Your task to perform on an android device: add a label to a message in the gmail app Image 0: 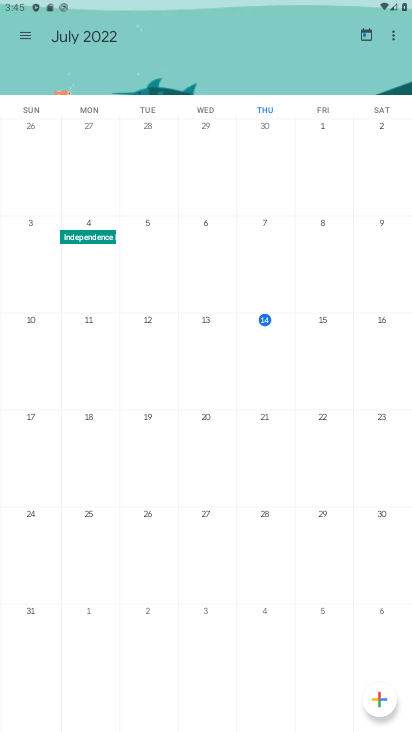
Step 0: press home button
Your task to perform on an android device: add a label to a message in the gmail app Image 1: 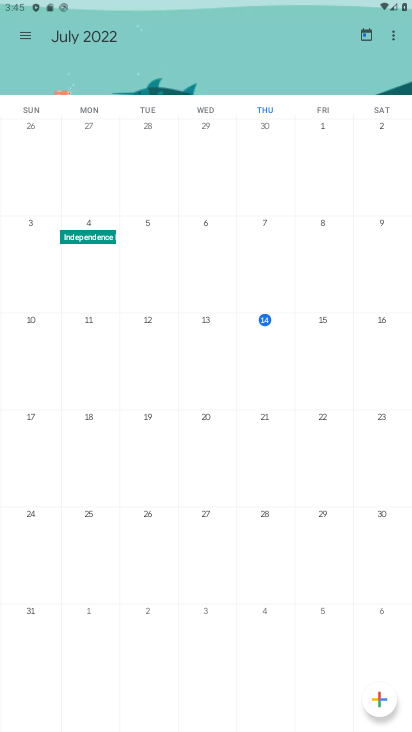
Step 1: press home button
Your task to perform on an android device: add a label to a message in the gmail app Image 2: 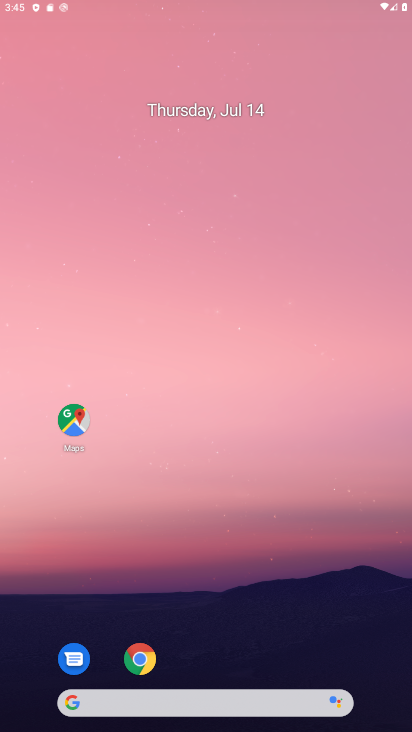
Step 2: press home button
Your task to perform on an android device: add a label to a message in the gmail app Image 3: 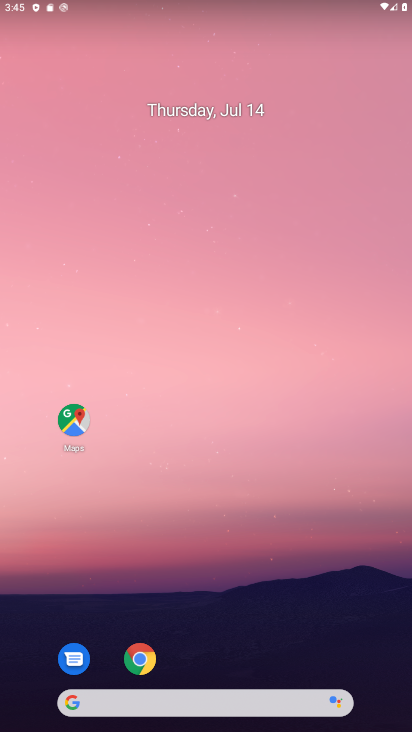
Step 3: drag from (273, 191) to (190, 79)
Your task to perform on an android device: add a label to a message in the gmail app Image 4: 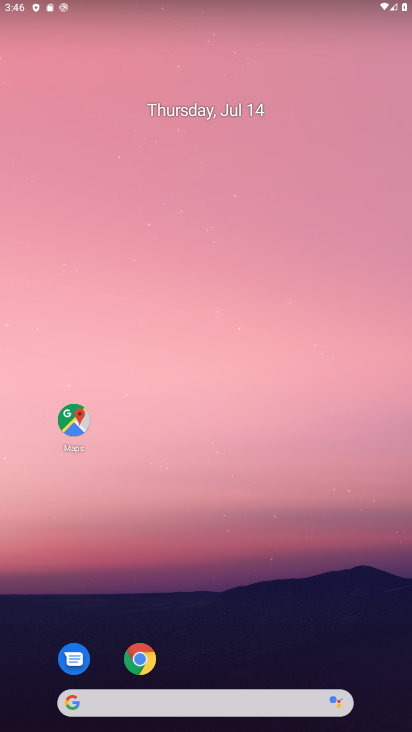
Step 4: drag from (216, 612) to (210, 201)
Your task to perform on an android device: add a label to a message in the gmail app Image 5: 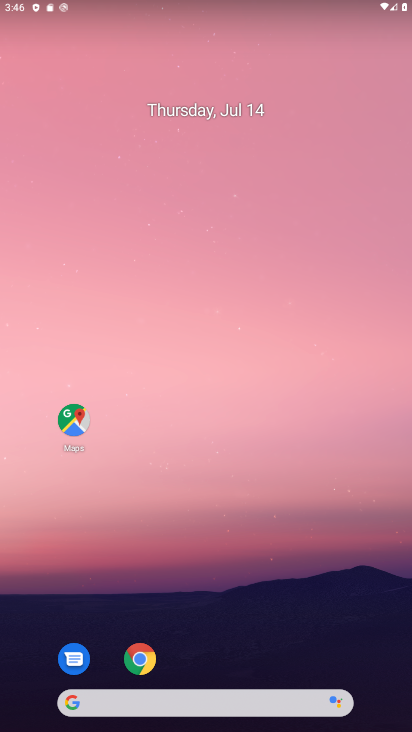
Step 5: drag from (178, 532) to (189, 24)
Your task to perform on an android device: add a label to a message in the gmail app Image 6: 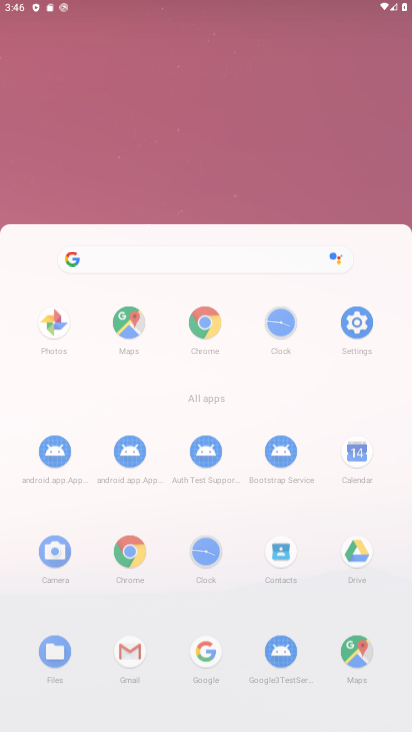
Step 6: drag from (214, 579) to (197, 131)
Your task to perform on an android device: add a label to a message in the gmail app Image 7: 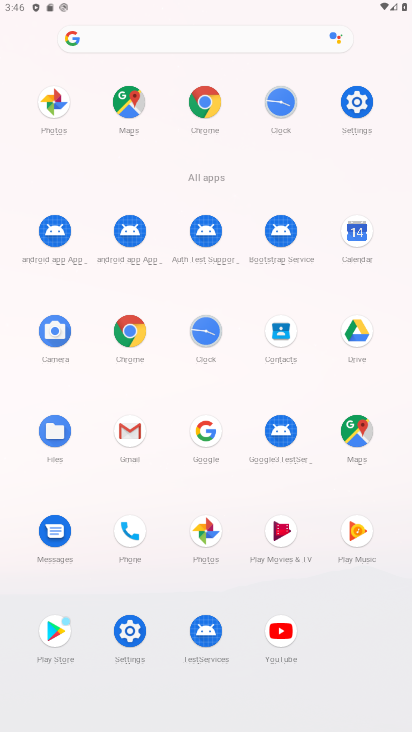
Step 7: drag from (185, 562) to (183, 113)
Your task to perform on an android device: add a label to a message in the gmail app Image 8: 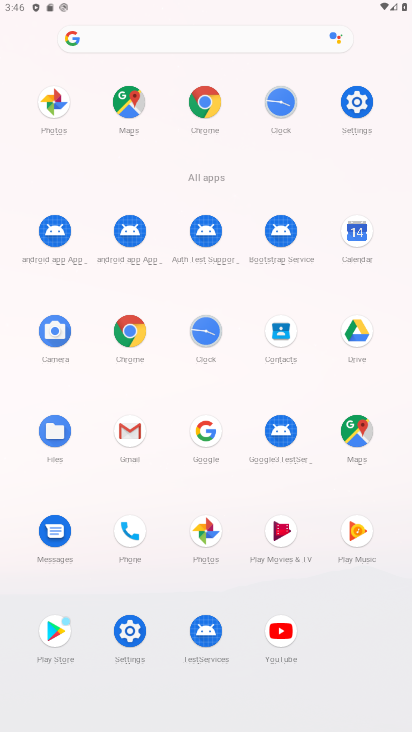
Step 8: click (139, 433)
Your task to perform on an android device: add a label to a message in the gmail app Image 9: 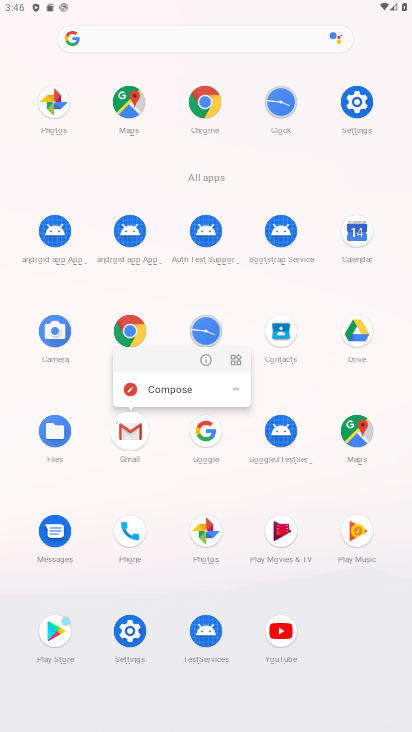
Step 9: click (136, 431)
Your task to perform on an android device: add a label to a message in the gmail app Image 10: 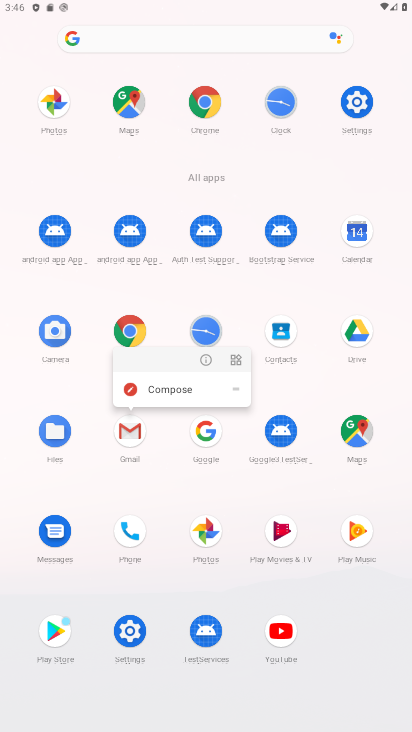
Step 10: click (135, 429)
Your task to perform on an android device: add a label to a message in the gmail app Image 11: 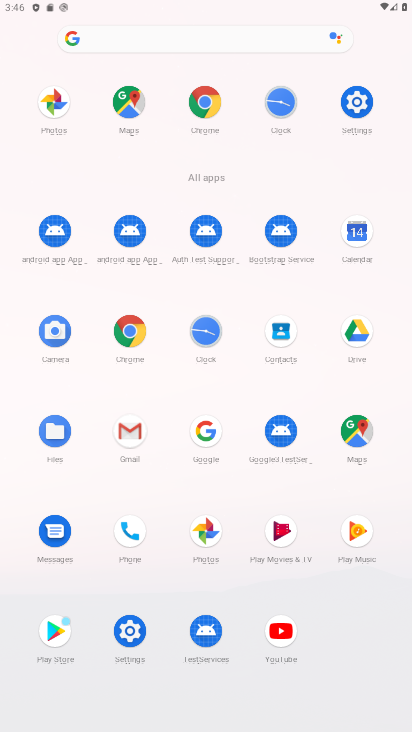
Step 11: click (135, 428)
Your task to perform on an android device: add a label to a message in the gmail app Image 12: 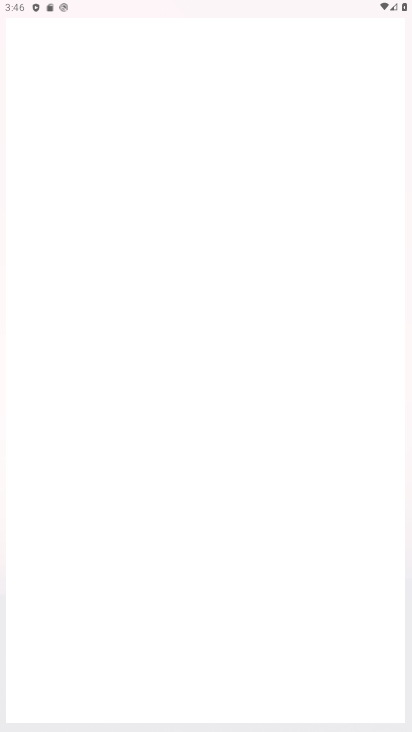
Step 12: click (135, 430)
Your task to perform on an android device: add a label to a message in the gmail app Image 13: 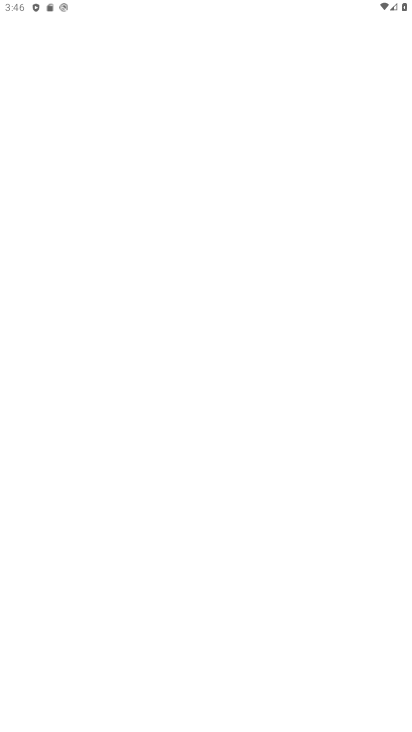
Step 13: click (119, 424)
Your task to perform on an android device: add a label to a message in the gmail app Image 14: 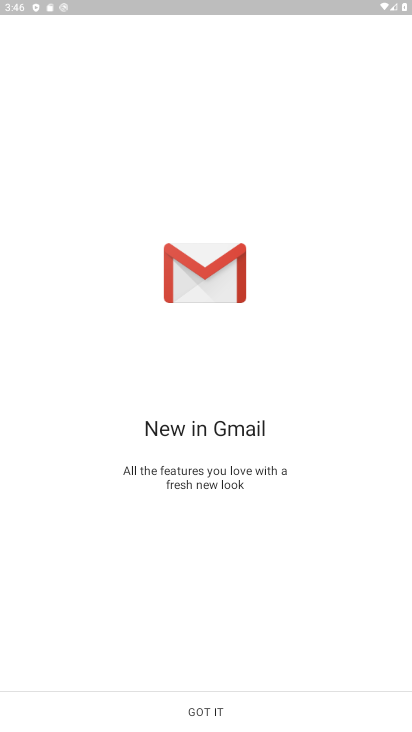
Step 14: click (210, 701)
Your task to perform on an android device: add a label to a message in the gmail app Image 15: 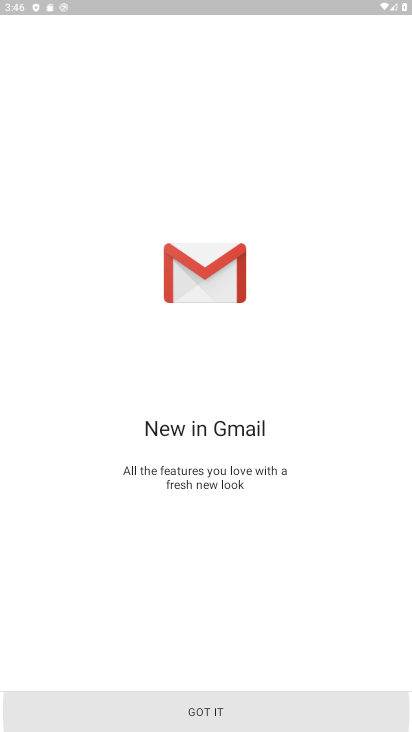
Step 15: click (210, 701)
Your task to perform on an android device: add a label to a message in the gmail app Image 16: 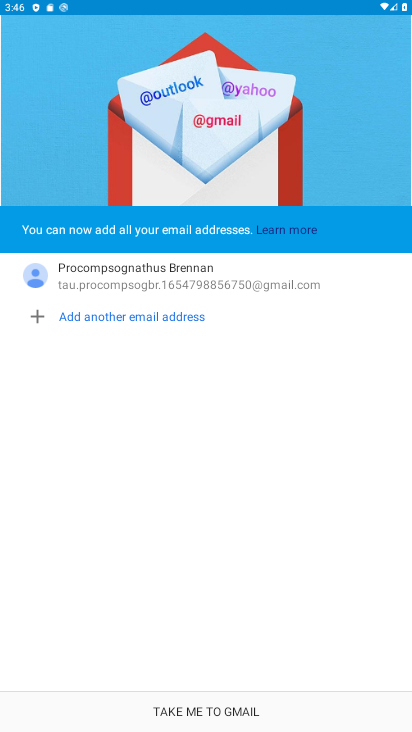
Step 16: click (222, 707)
Your task to perform on an android device: add a label to a message in the gmail app Image 17: 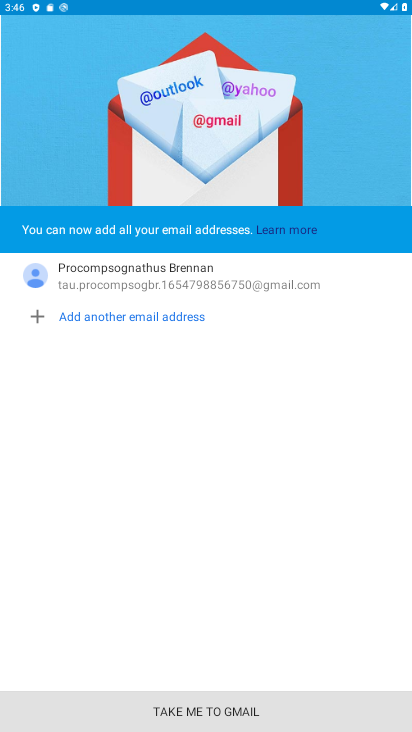
Step 17: click (223, 698)
Your task to perform on an android device: add a label to a message in the gmail app Image 18: 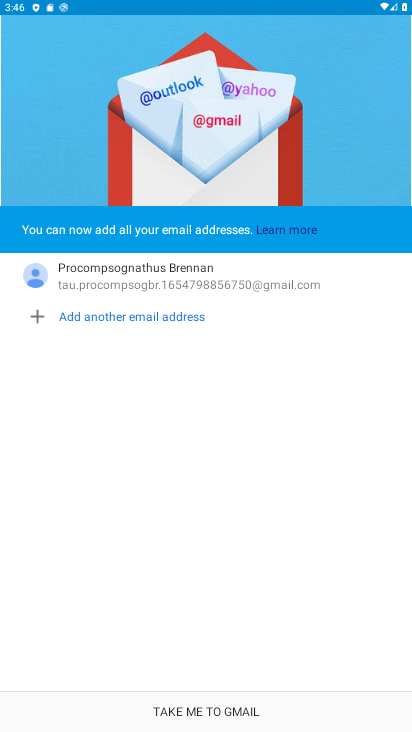
Step 18: click (239, 704)
Your task to perform on an android device: add a label to a message in the gmail app Image 19: 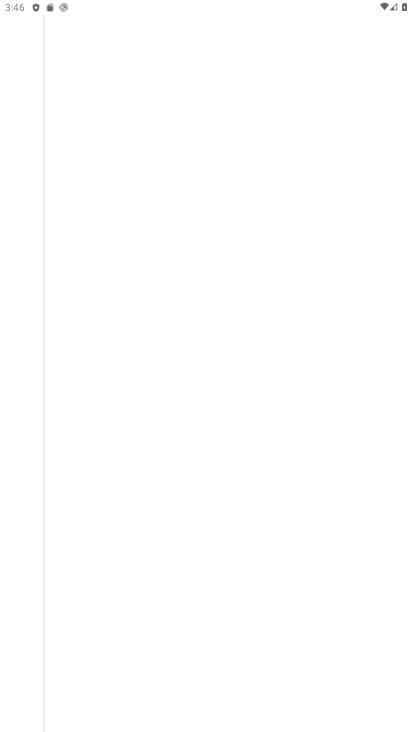
Step 19: click (272, 705)
Your task to perform on an android device: add a label to a message in the gmail app Image 20: 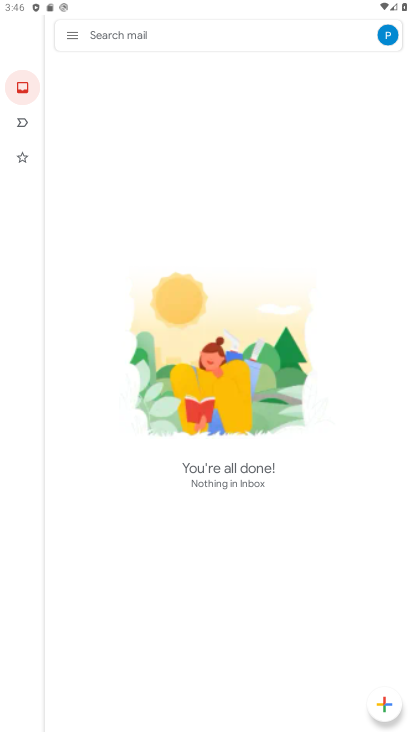
Step 20: click (68, 51)
Your task to perform on an android device: add a label to a message in the gmail app Image 21: 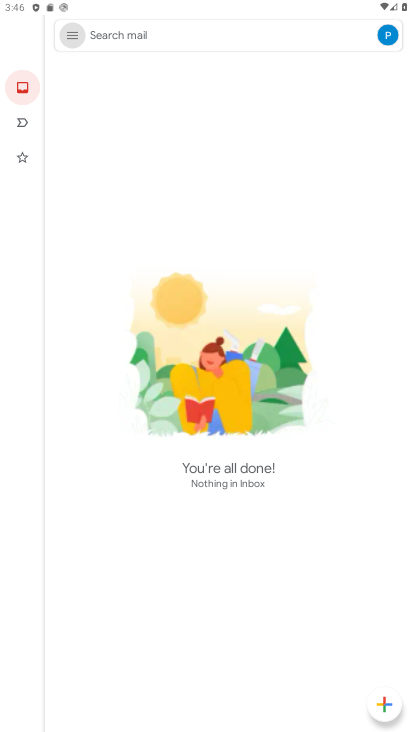
Step 21: click (73, 37)
Your task to perform on an android device: add a label to a message in the gmail app Image 22: 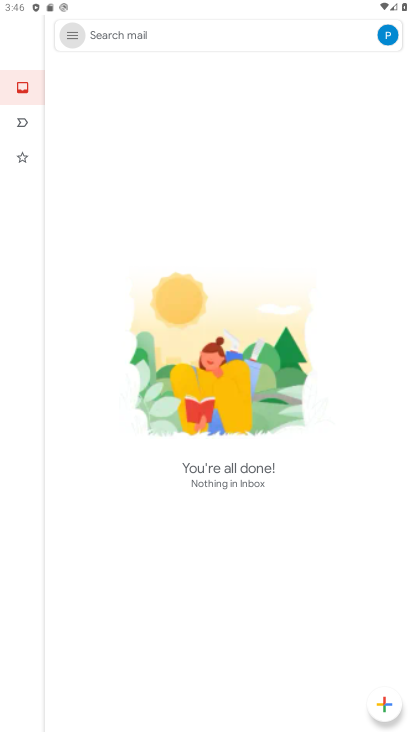
Step 22: click (73, 38)
Your task to perform on an android device: add a label to a message in the gmail app Image 23: 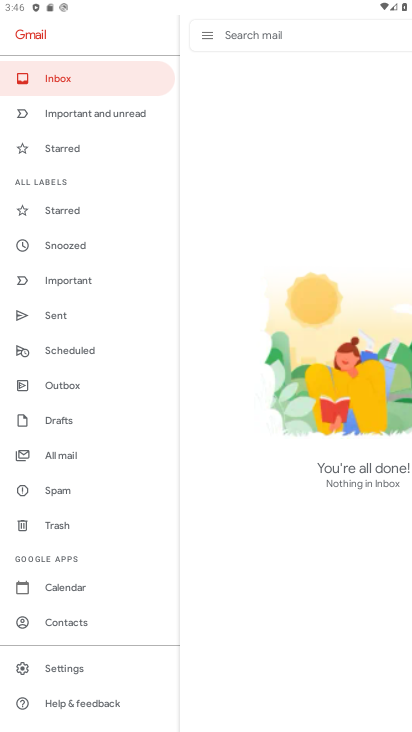
Step 23: click (77, 454)
Your task to perform on an android device: add a label to a message in the gmail app Image 24: 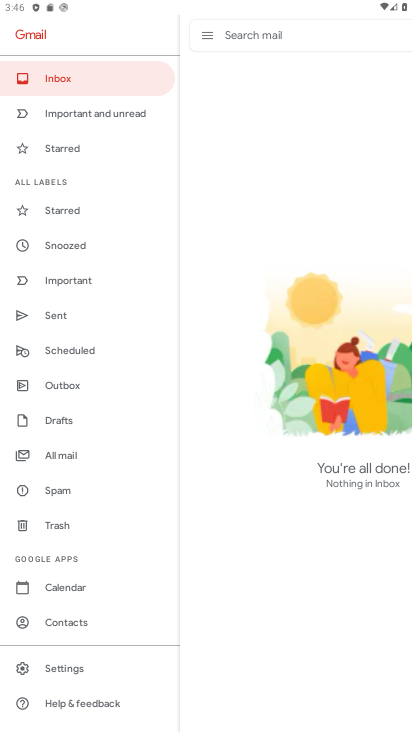
Step 24: click (75, 454)
Your task to perform on an android device: add a label to a message in the gmail app Image 25: 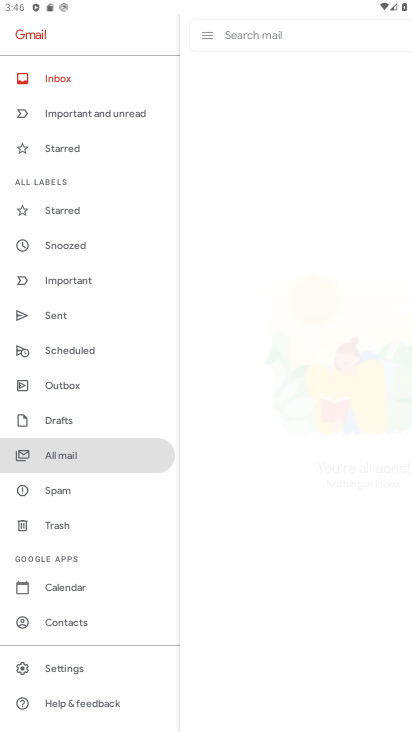
Step 25: click (76, 453)
Your task to perform on an android device: add a label to a message in the gmail app Image 26: 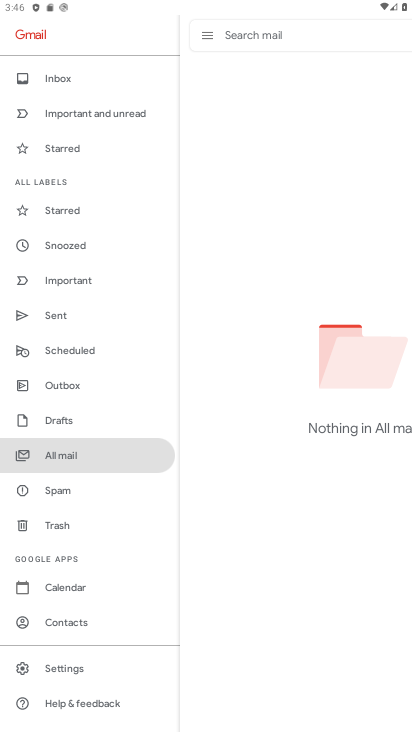
Step 26: click (82, 477)
Your task to perform on an android device: add a label to a message in the gmail app Image 27: 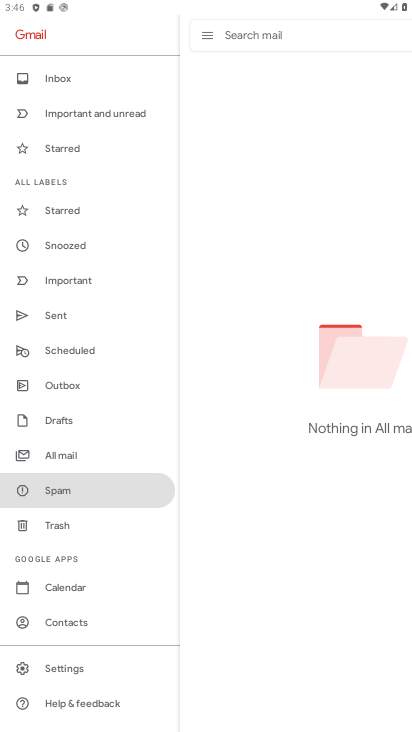
Step 27: click (87, 459)
Your task to perform on an android device: add a label to a message in the gmail app Image 28: 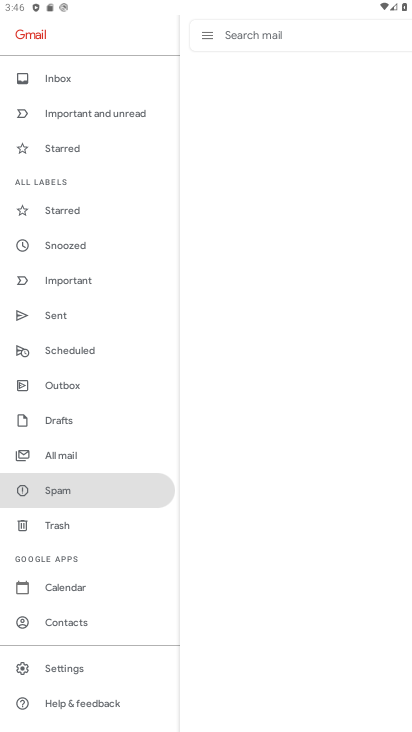
Step 28: click (98, 453)
Your task to perform on an android device: add a label to a message in the gmail app Image 29: 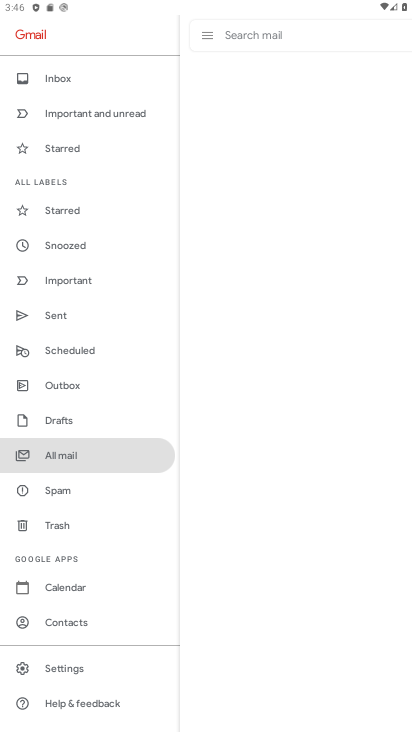
Step 29: click (97, 455)
Your task to perform on an android device: add a label to a message in the gmail app Image 30: 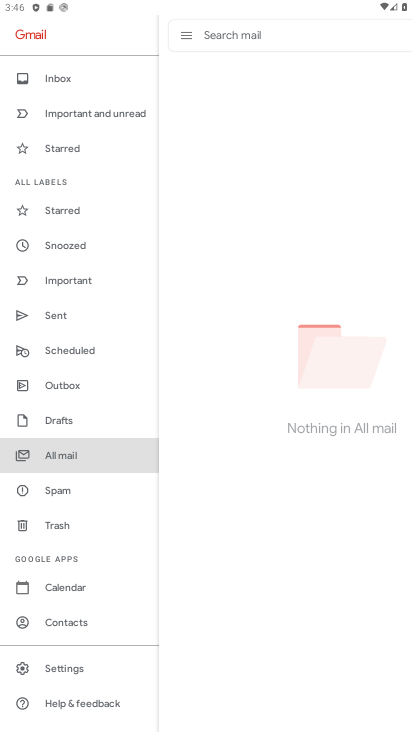
Step 30: click (97, 455)
Your task to perform on an android device: add a label to a message in the gmail app Image 31: 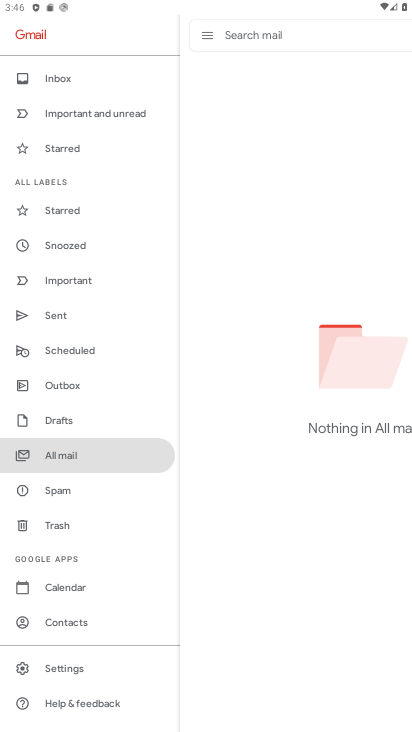
Step 31: click (85, 459)
Your task to perform on an android device: add a label to a message in the gmail app Image 32: 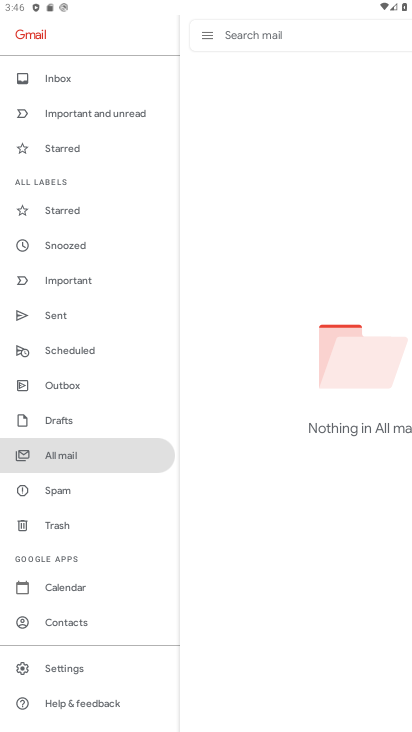
Step 32: click (94, 456)
Your task to perform on an android device: add a label to a message in the gmail app Image 33: 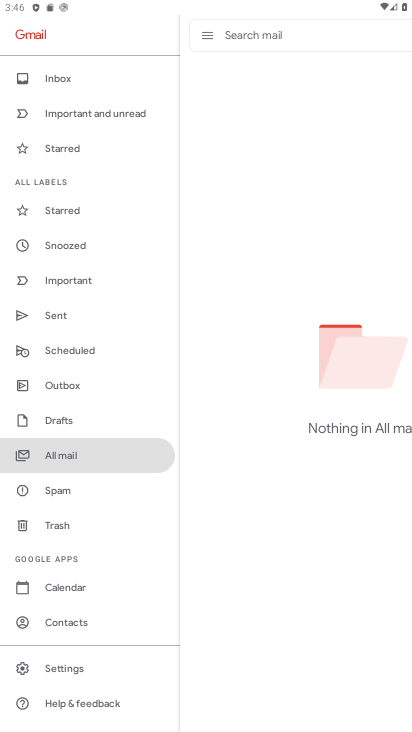
Step 33: click (96, 464)
Your task to perform on an android device: add a label to a message in the gmail app Image 34: 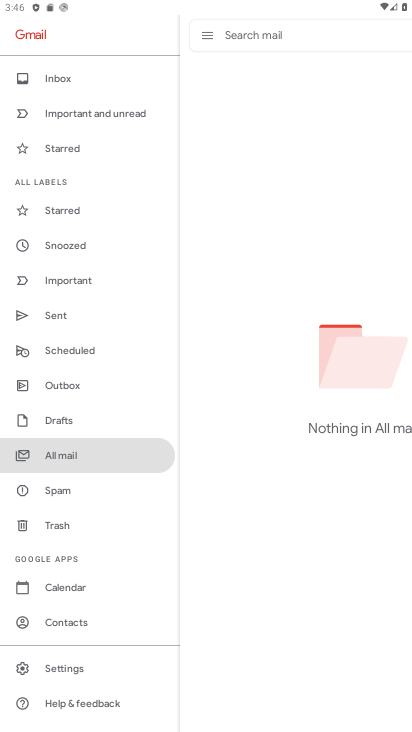
Step 34: click (102, 455)
Your task to perform on an android device: add a label to a message in the gmail app Image 35: 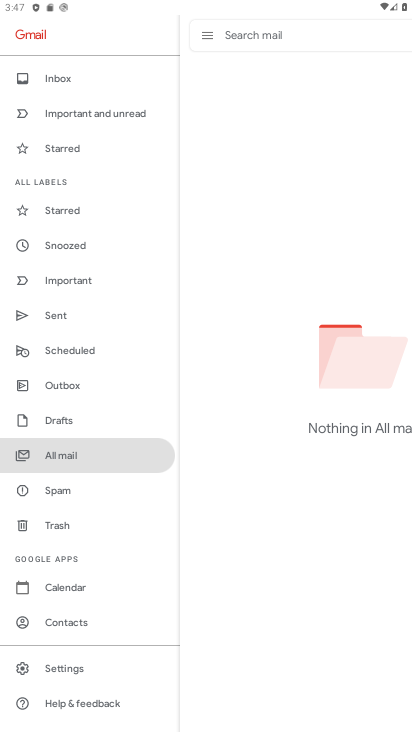
Step 35: click (342, 378)
Your task to perform on an android device: add a label to a message in the gmail app Image 36: 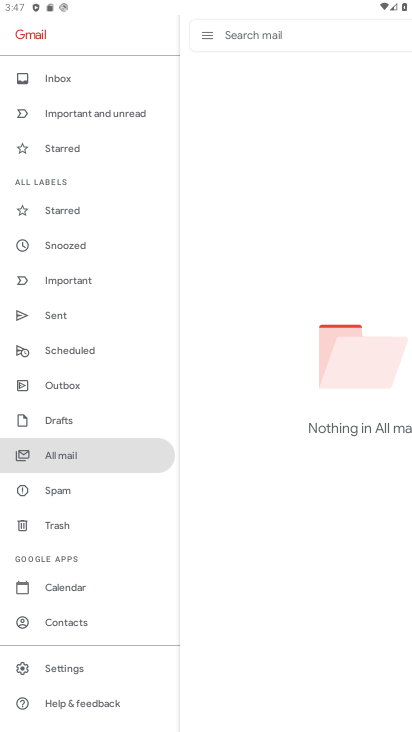
Step 36: task complete